Your task to perform on an android device: toggle notification dots Image 0: 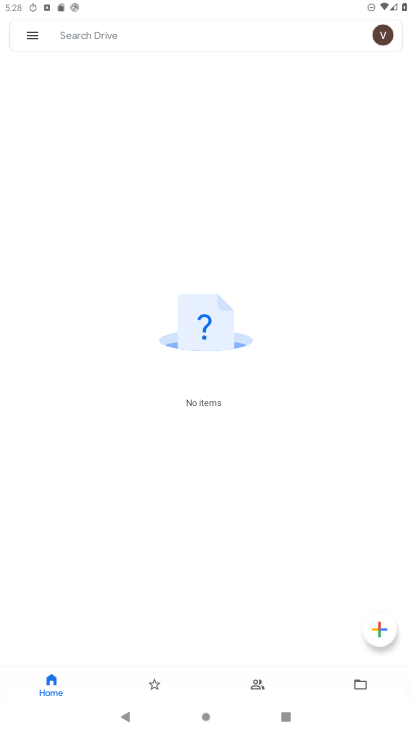
Step 0: press home button
Your task to perform on an android device: toggle notification dots Image 1: 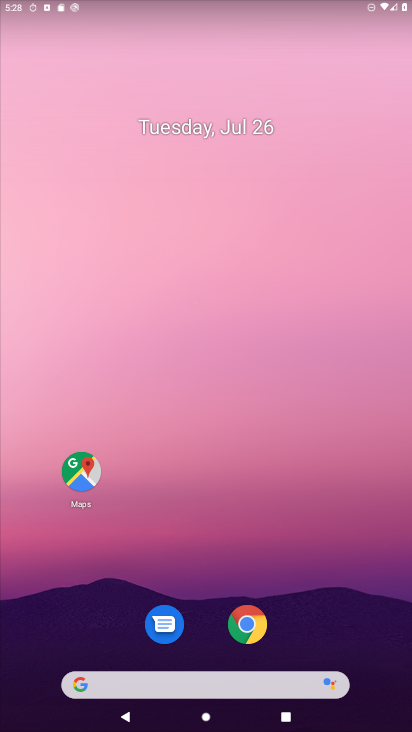
Step 1: drag from (308, 662) to (352, 0)
Your task to perform on an android device: toggle notification dots Image 2: 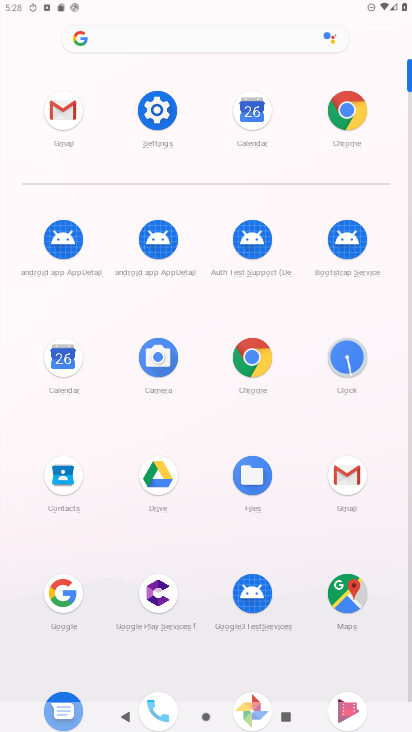
Step 2: click (154, 103)
Your task to perform on an android device: toggle notification dots Image 3: 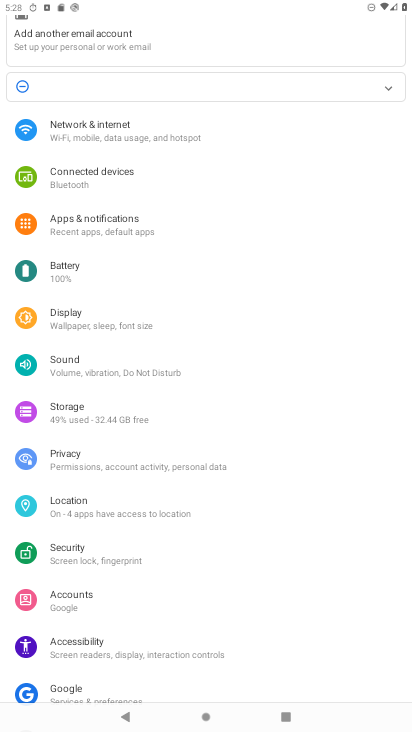
Step 3: click (136, 210)
Your task to perform on an android device: toggle notification dots Image 4: 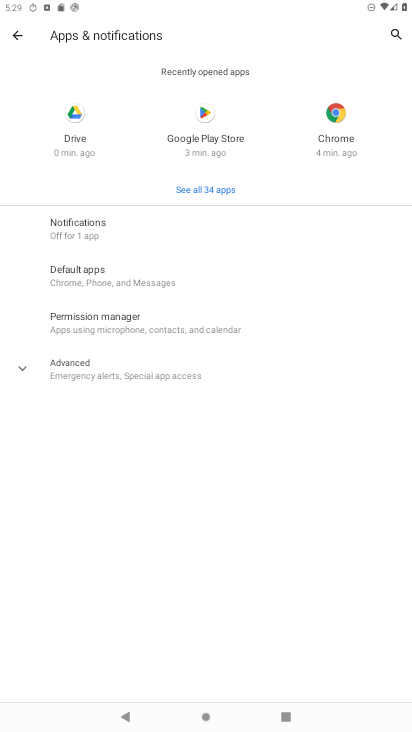
Step 4: click (104, 220)
Your task to perform on an android device: toggle notification dots Image 5: 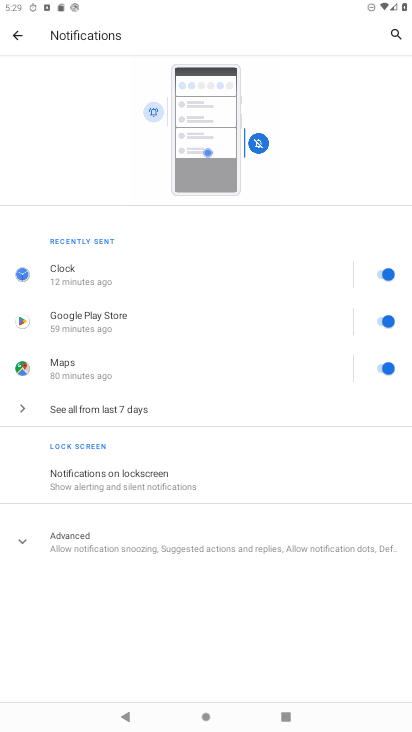
Step 5: click (115, 524)
Your task to perform on an android device: toggle notification dots Image 6: 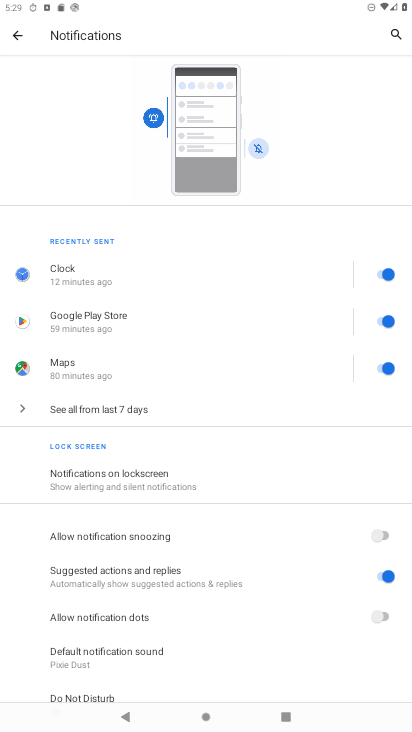
Step 6: click (380, 611)
Your task to perform on an android device: toggle notification dots Image 7: 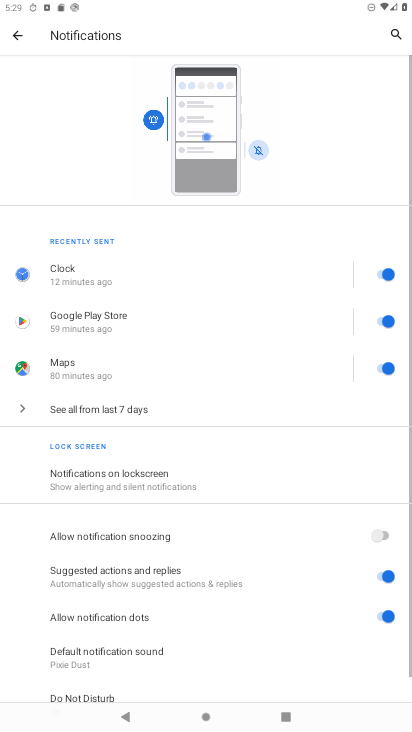
Step 7: task complete